Your task to perform on an android device: Open wifi settings Image 0: 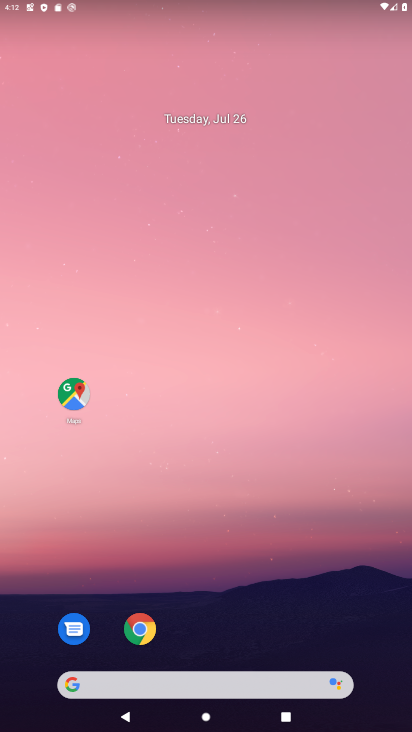
Step 0: drag from (122, 6) to (235, 528)
Your task to perform on an android device: Open wifi settings Image 1: 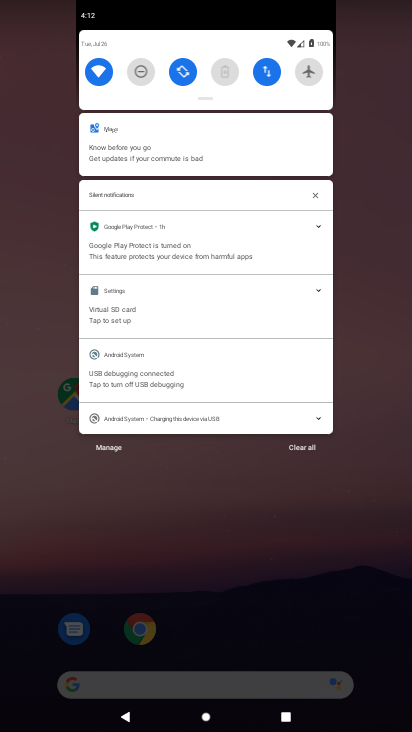
Step 1: click (95, 73)
Your task to perform on an android device: Open wifi settings Image 2: 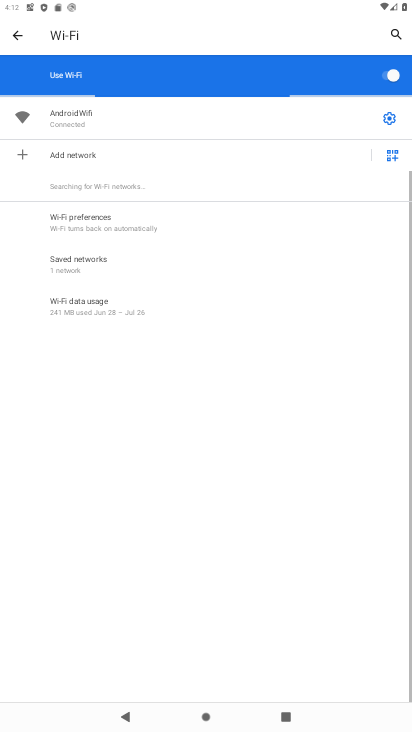
Step 2: task complete